Your task to perform on an android device: Open Android settings Image 0: 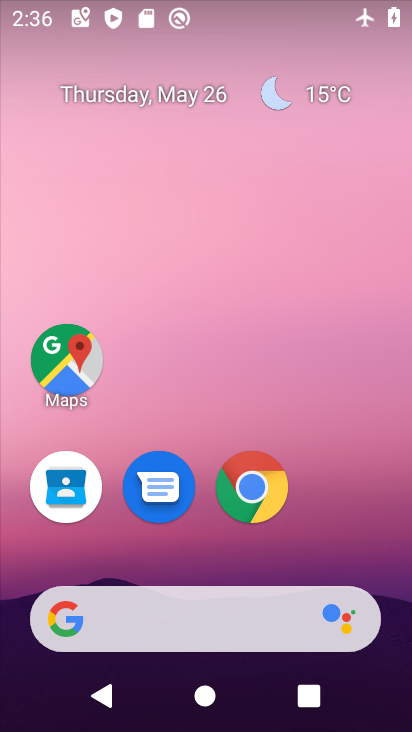
Step 0: drag from (175, 557) to (235, 203)
Your task to perform on an android device: Open Android settings Image 1: 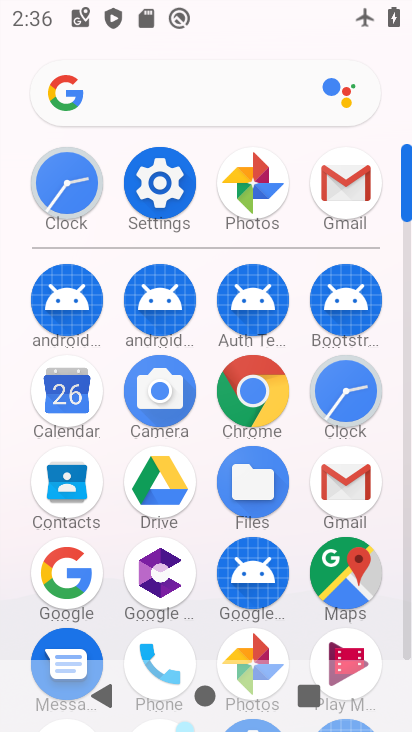
Step 1: click (181, 188)
Your task to perform on an android device: Open Android settings Image 2: 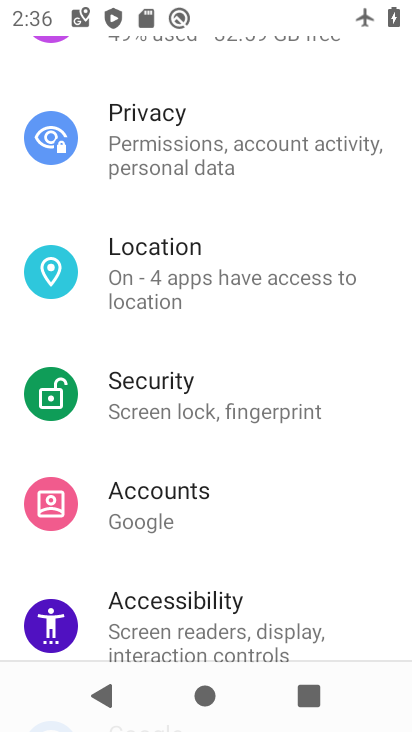
Step 2: task complete